Your task to perform on an android device: Go to eBay Image 0: 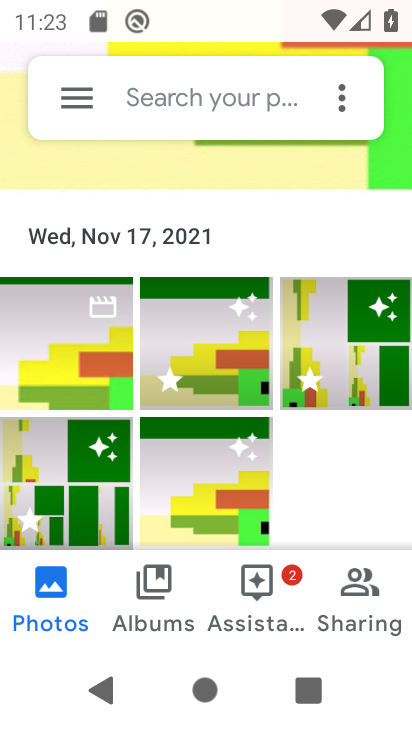
Step 0: press home button
Your task to perform on an android device: Go to eBay Image 1: 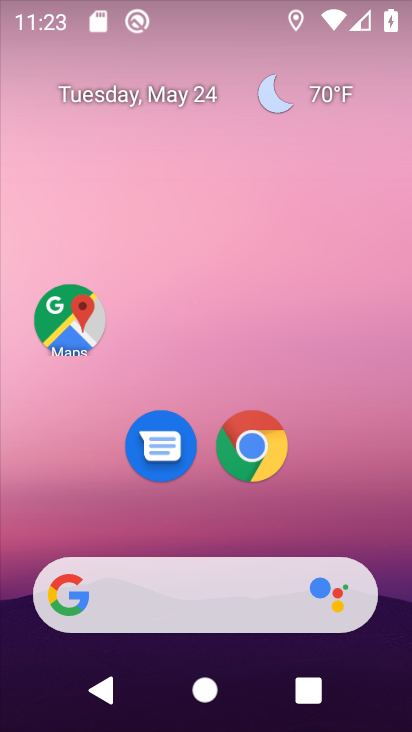
Step 1: drag from (236, 527) to (197, 196)
Your task to perform on an android device: Go to eBay Image 2: 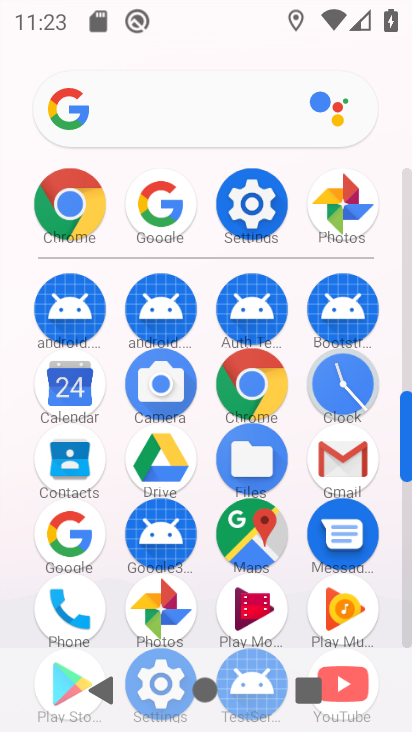
Step 2: click (86, 223)
Your task to perform on an android device: Go to eBay Image 3: 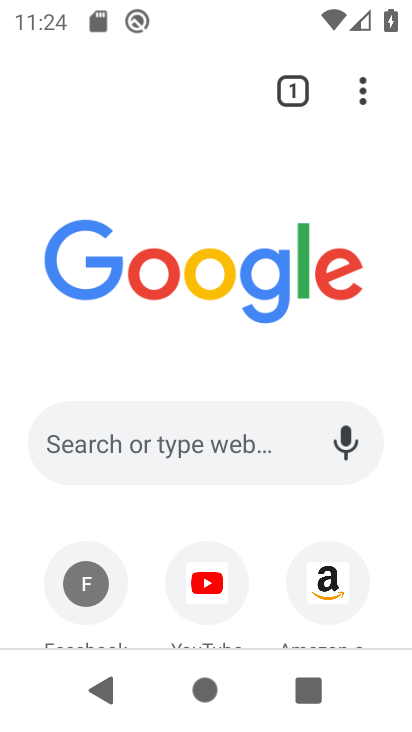
Step 3: click (194, 439)
Your task to perform on an android device: Go to eBay Image 4: 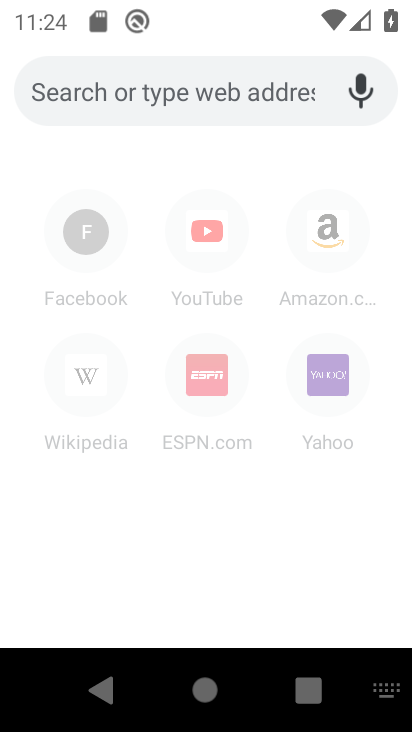
Step 4: type "eBay"
Your task to perform on an android device: Go to eBay Image 5: 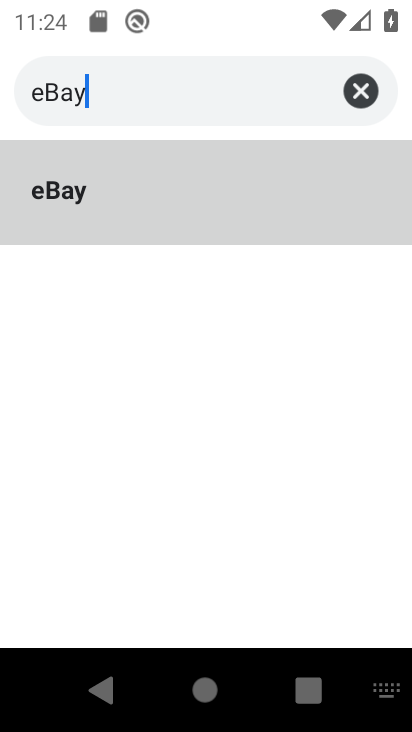
Step 5: type ""
Your task to perform on an android device: Go to eBay Image 6: 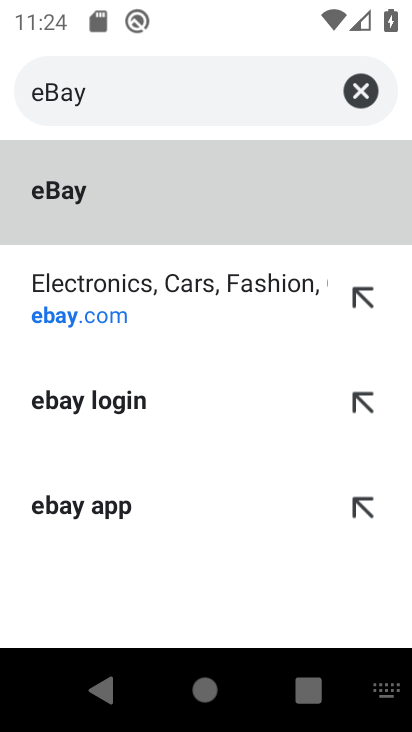
Step 6: click (90, 203)
Your task to perform on an android device: Go to eBay Image 7: 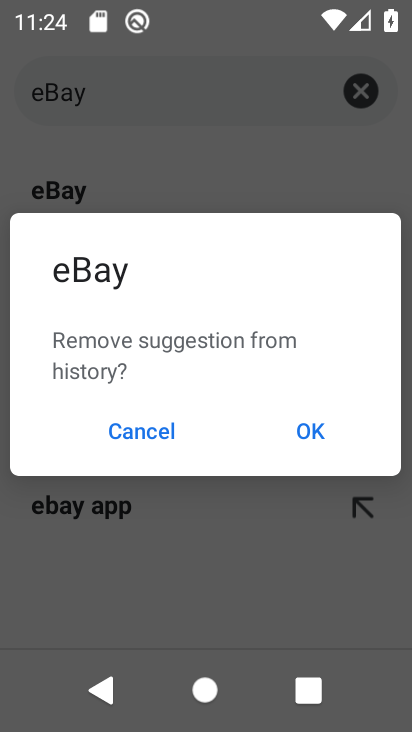
Step 7: click (273, 416)
Your task to perform on an android device: Go to eBay Image 8: 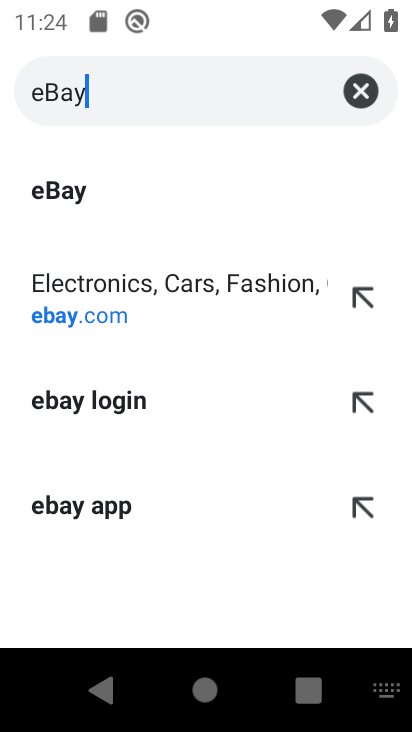
Step 8: click (183, 310)
Your task to perform on an android device: Go to eBay Image 9: 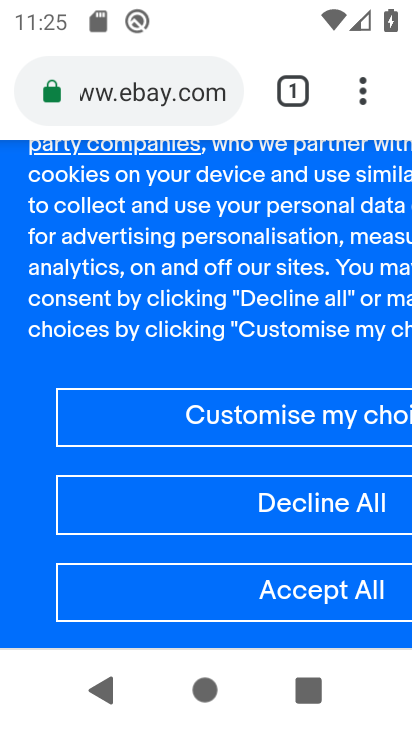
Step 9: task complete